Your task to perform on an android device: Empty the shopping cart on newegg.com. Add razer blade to the cart on newegg.com, then select checkout. Image 0: 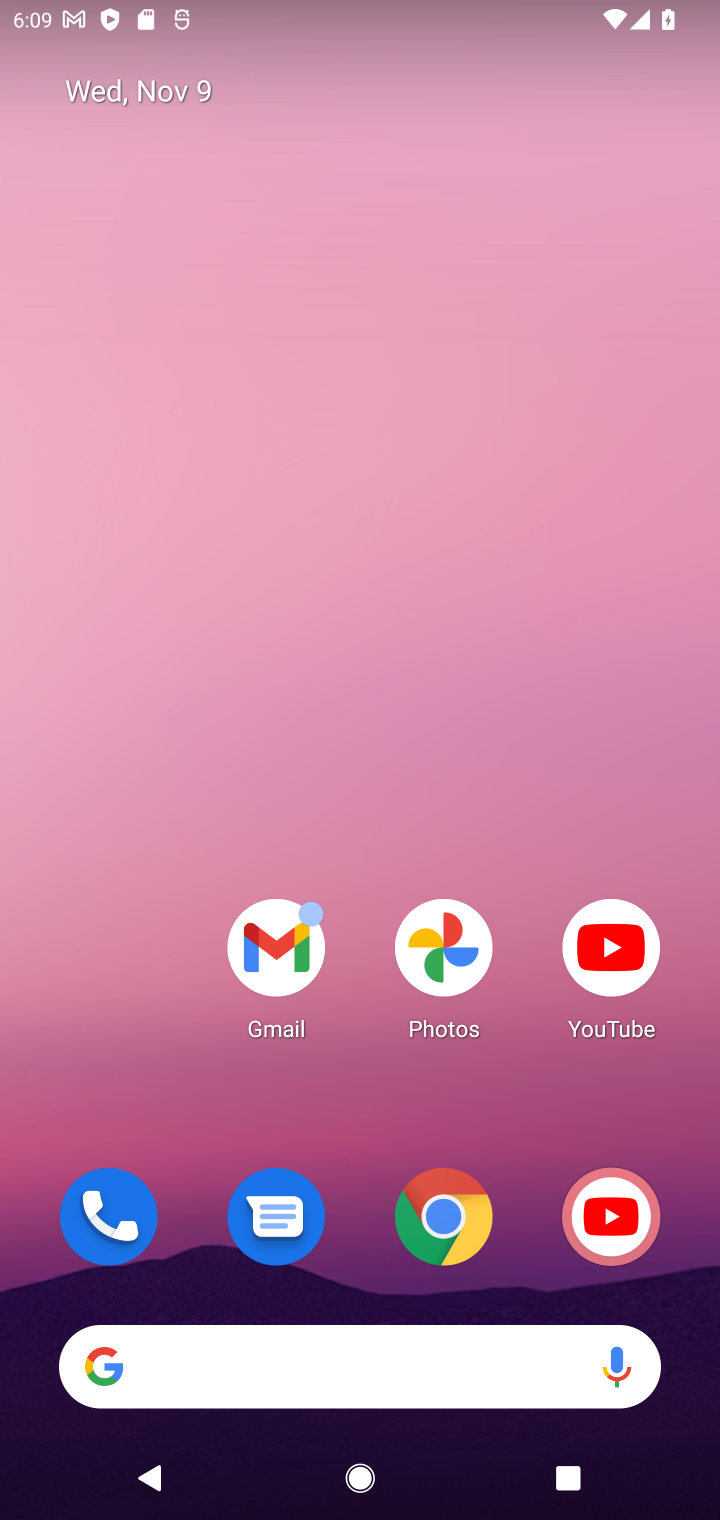
Step 0: drag from (368, 974) to (254, 187)
Your task to perform on an android device: Empty the shopping cart on newegg.com. Add razer blade to the cart on newegg.com, then select checkout. Image 1: 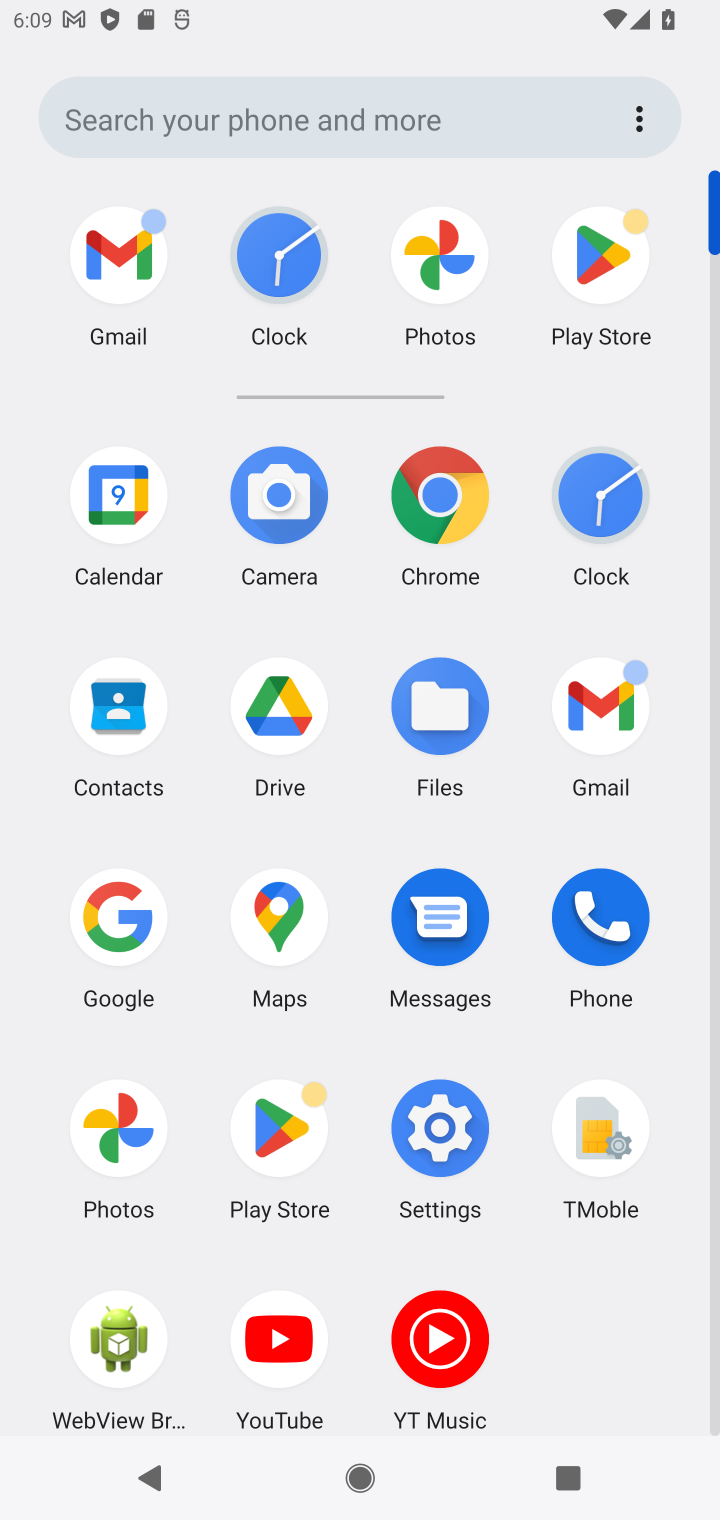
Step 1: click (451, 490)
Your task to perform on an android device: Empty the shopping cart on newegg.com. Add razer blade to the cart on newegg.com, then select checkout. Image 2: 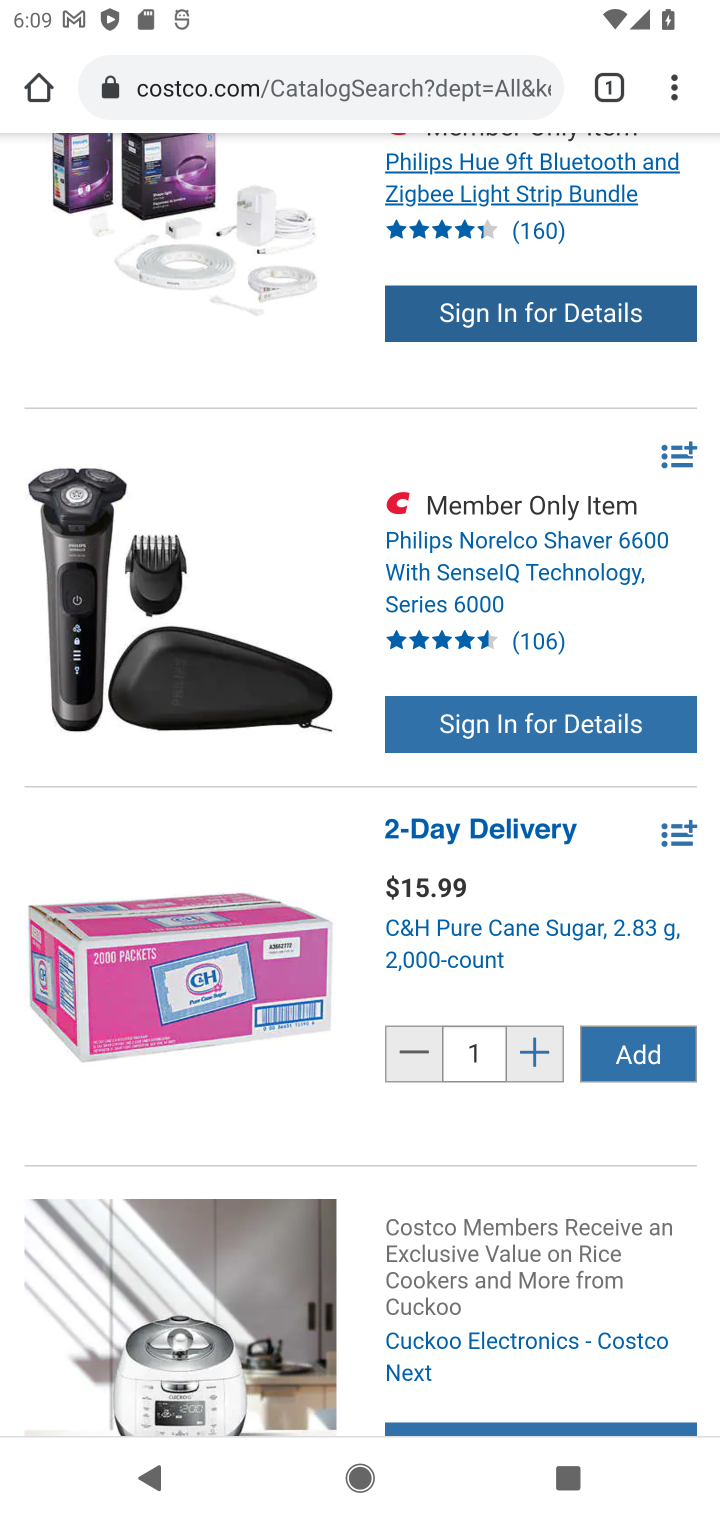
Step 2: drag from (492, 197) to (522, 741)
Your task to perform on an android device: Empty the shopping cart on newegg.com. Add razer blade to the cart on newegg.com, then select checkout. Image 3: 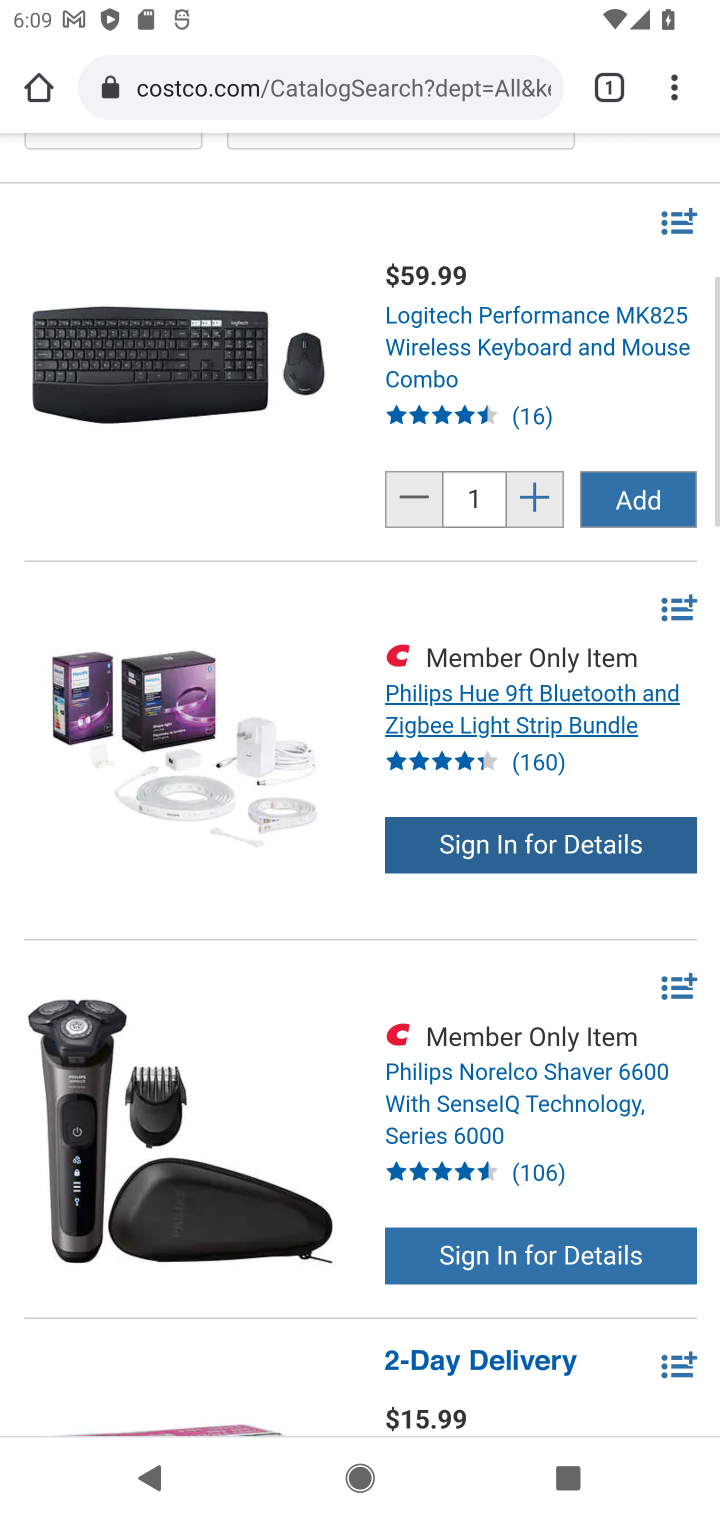
Step 3: click (352, 88)
Your task to perform on an android device: Empty the shopping cart on newegg.com. Add razer blade to the cart on newegg.com, then select checkout. Image 4: 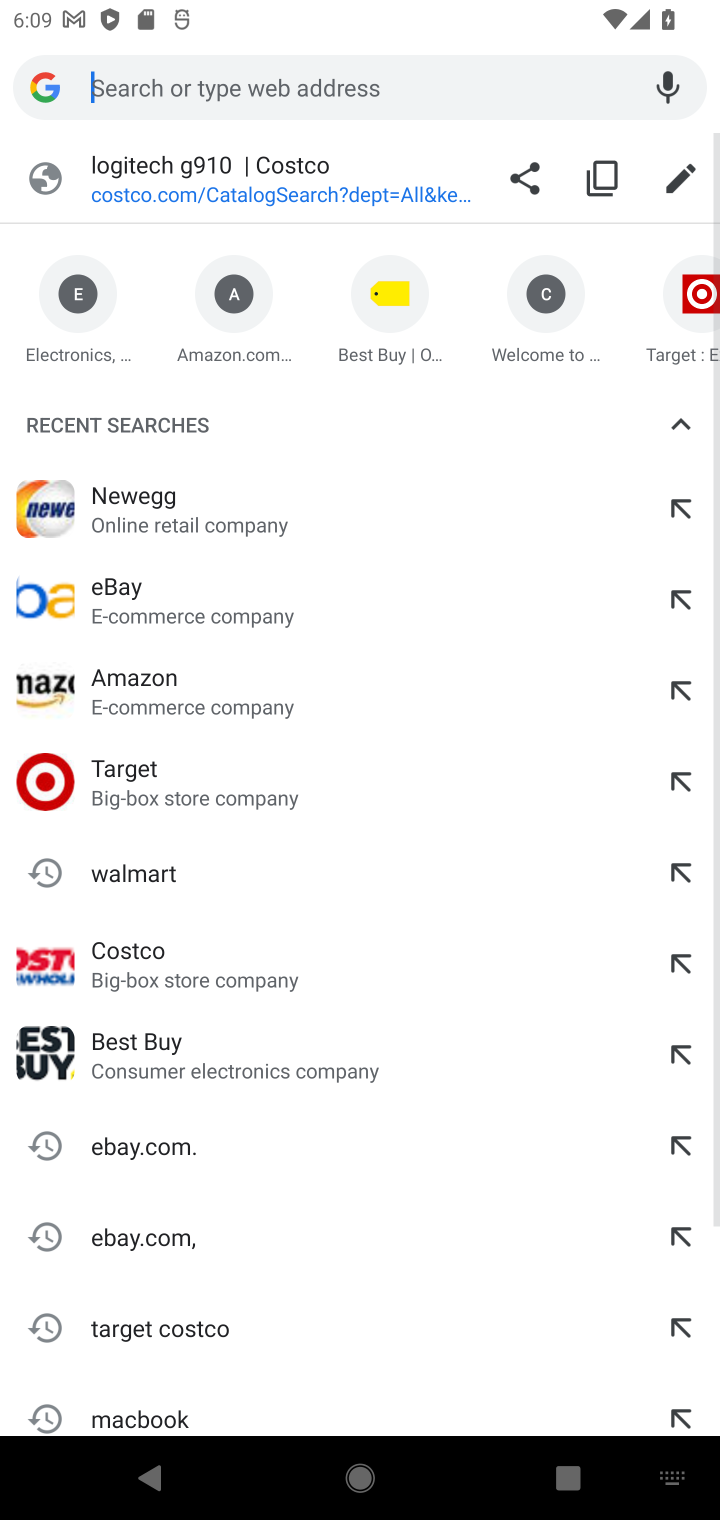
Step 4: type "newegg.com"
Your task to perform on an android device: Empty the shopping cart on newegg.com. Add razer blade to the cart on newegg.com, then select checkout. Image 5: 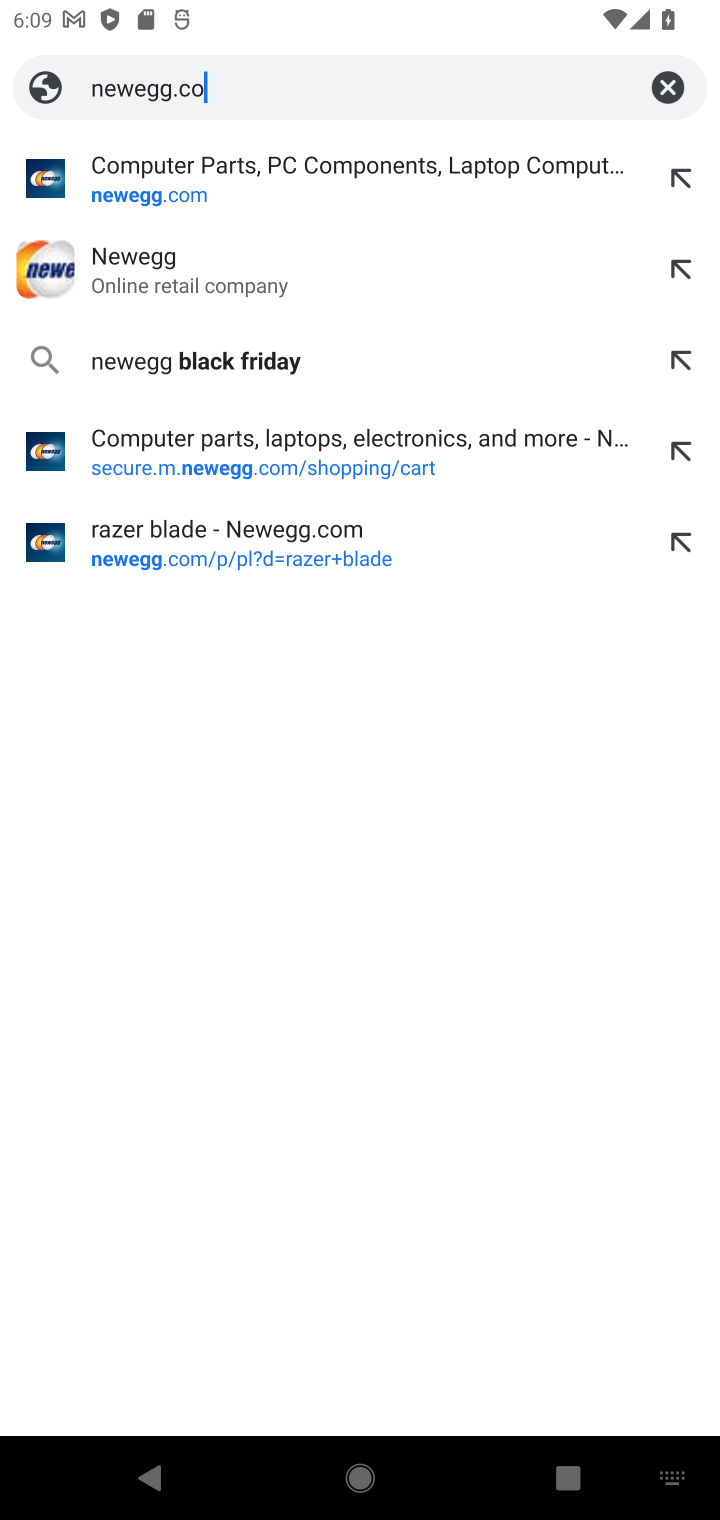
Step 5: press enter
Your task to perform on an android device: Empty the shopping cart on newegg.com. Add razer blade to the cart on newegg.com, then select checkout. Image 6: 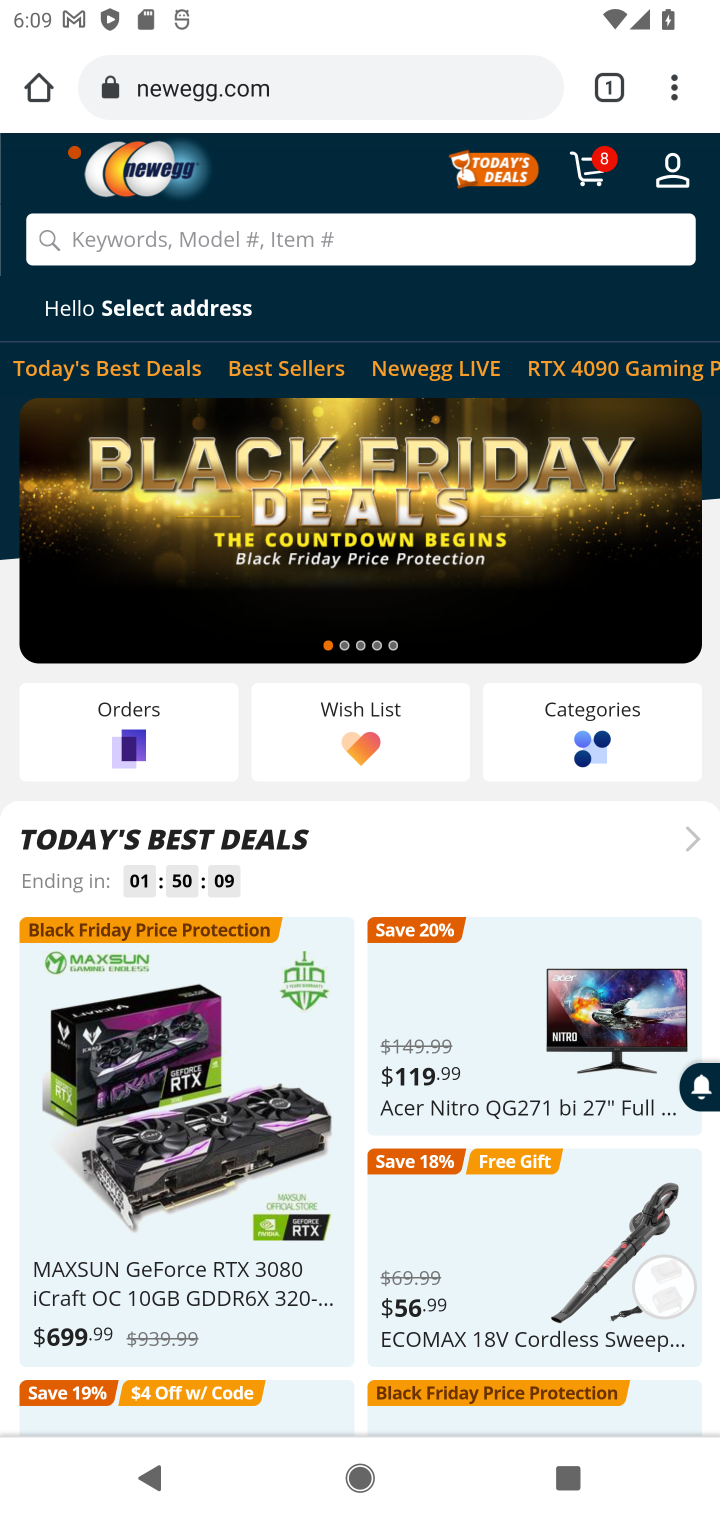
Step 6: click (599, 177)
Your task to perform on an android device: Empty the shopping cart on newegg.com. Add razer blade to the cart on newegg.com, then select checkout. Image 7: 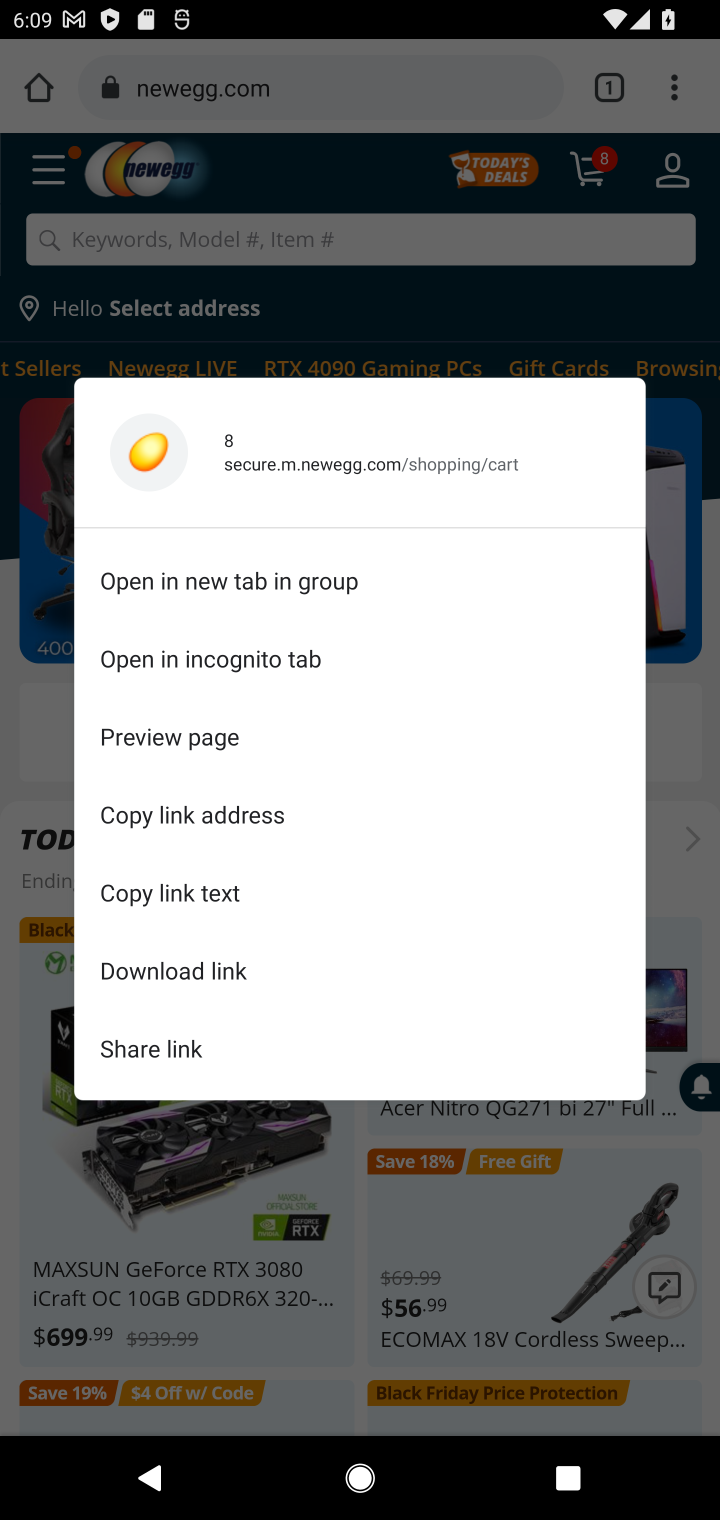
Step 7: click (599, 177)
Your task to perform on an android device: Empty the shopping cart on newegg.com. Add razer blade to the cart on newegg.com, then select checkout. Image 8: 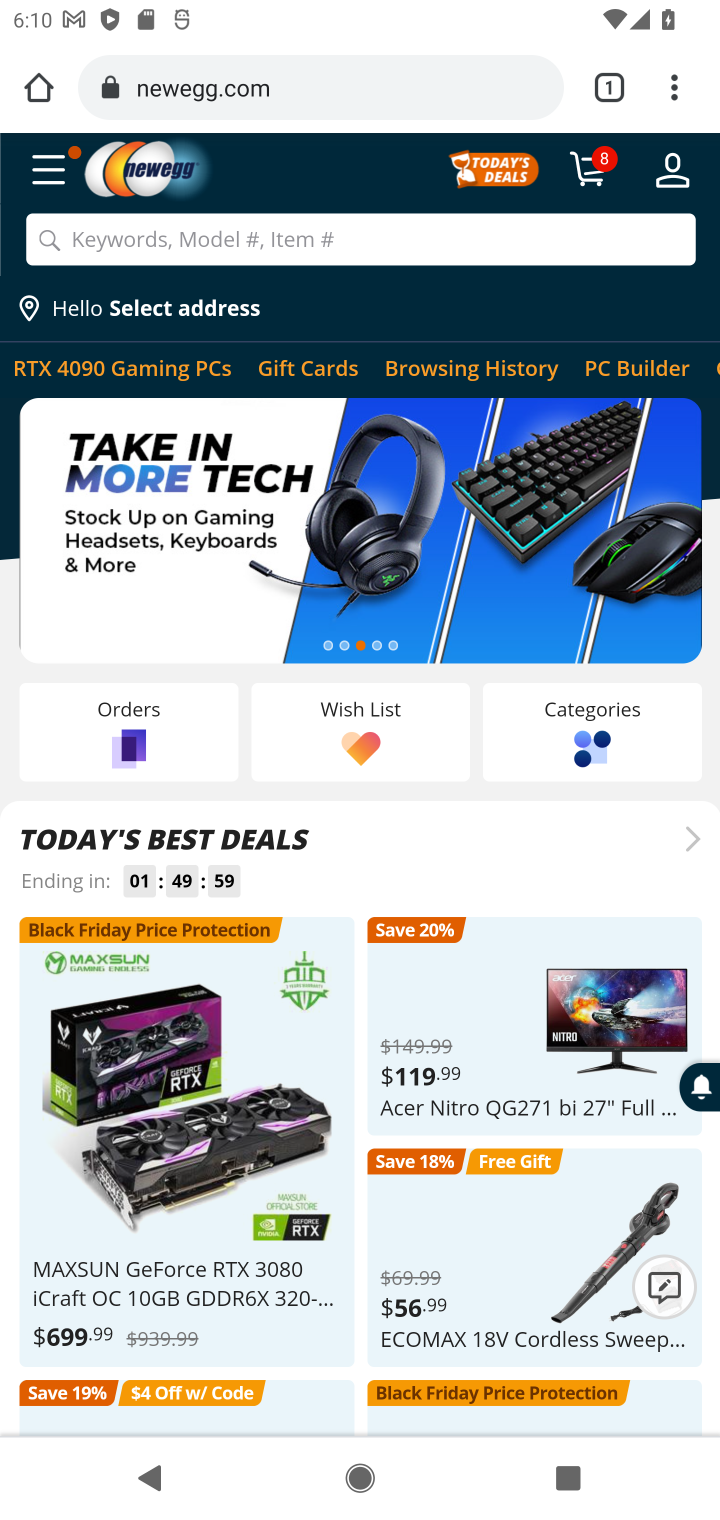
Step 8: click (599, 177)
Your task to perform on an android device: Empty the shopping cart on newegg.com. Add razer blade to the cart on newegg.com, then select checkout. Image 9: 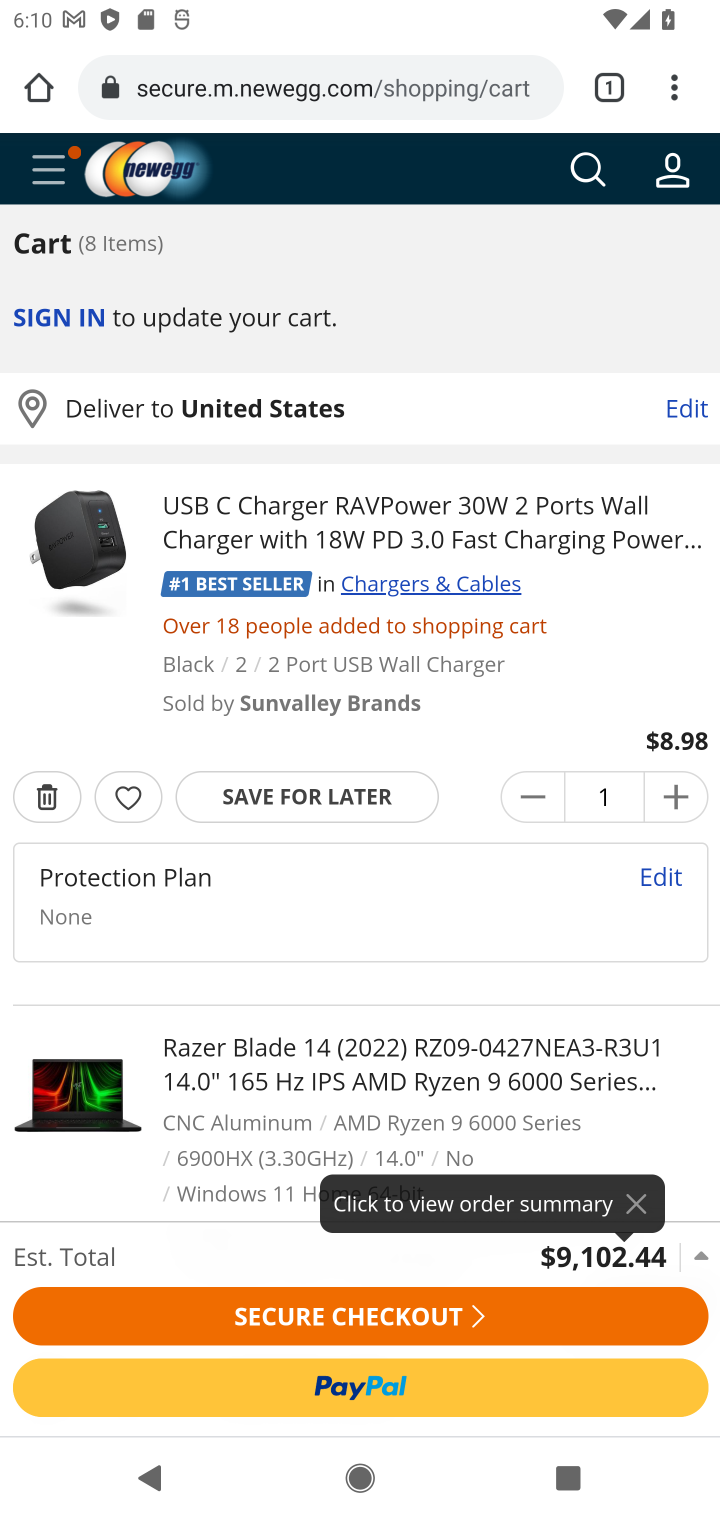
Step 9: click (57, 792)
Your task to perform on an android device: Empty the shopping cart on newegg.com. Add razer blade to the cart on newegg.com, then select checkout. Image 10: 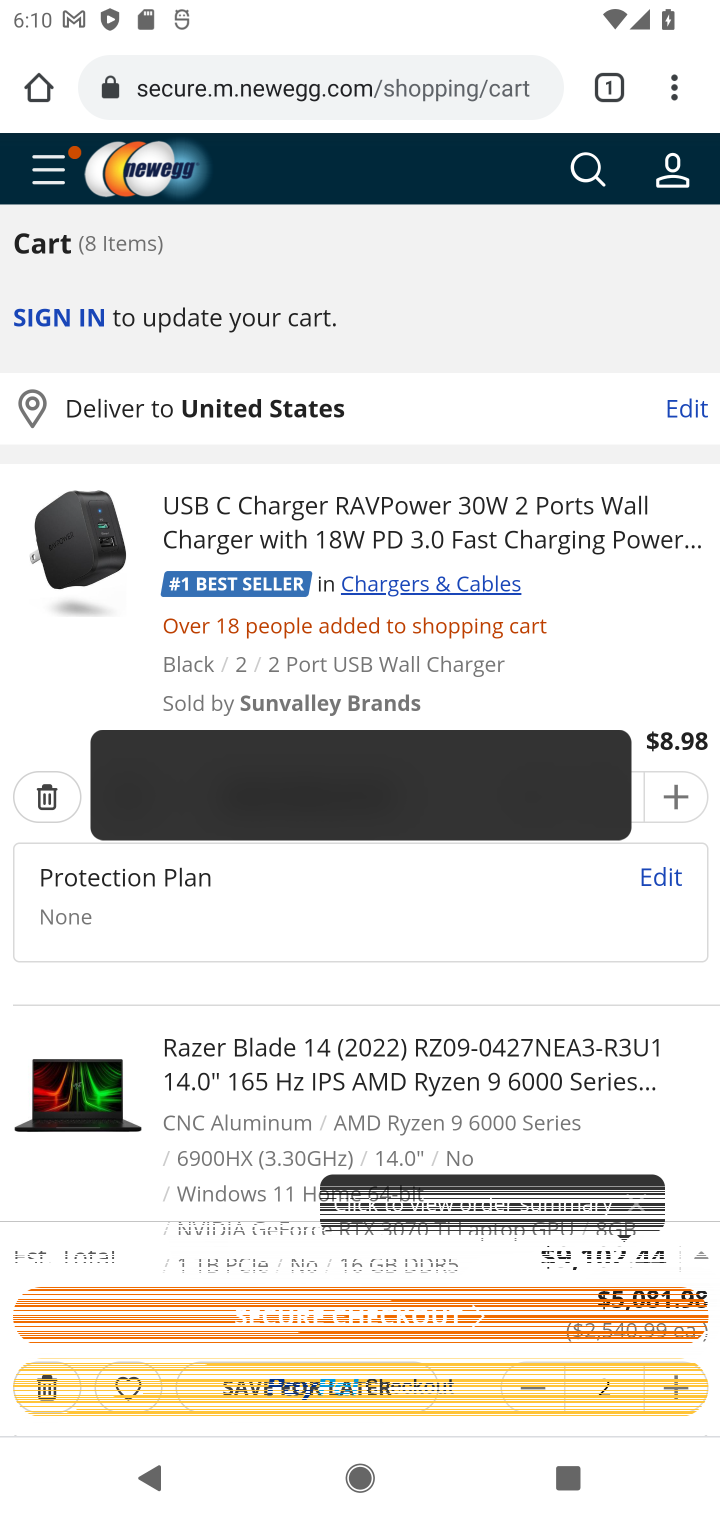
Step 10: drag from (472, 977) to (476, 860)
Your task to perform on an android device: Empty the shopping cart on newegg.com. Add razer blade to the cart on newegg.com, then select checkout. Image 11: 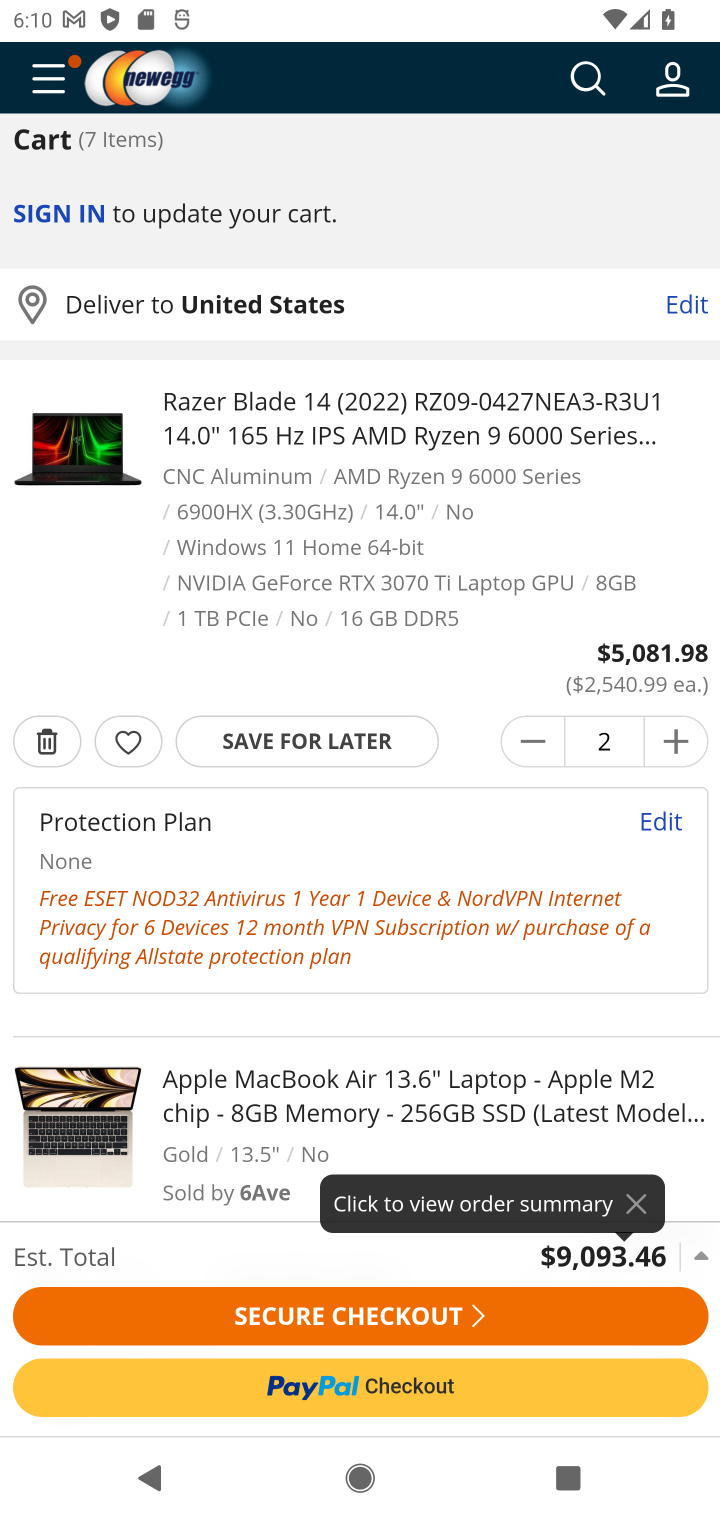
Step 11: click (38, 727)
Your task to perform on an android device: Empty the shopping cart on newegg.com. Add razer blade to the cart on newegg.com, then select checkout. Image 12: 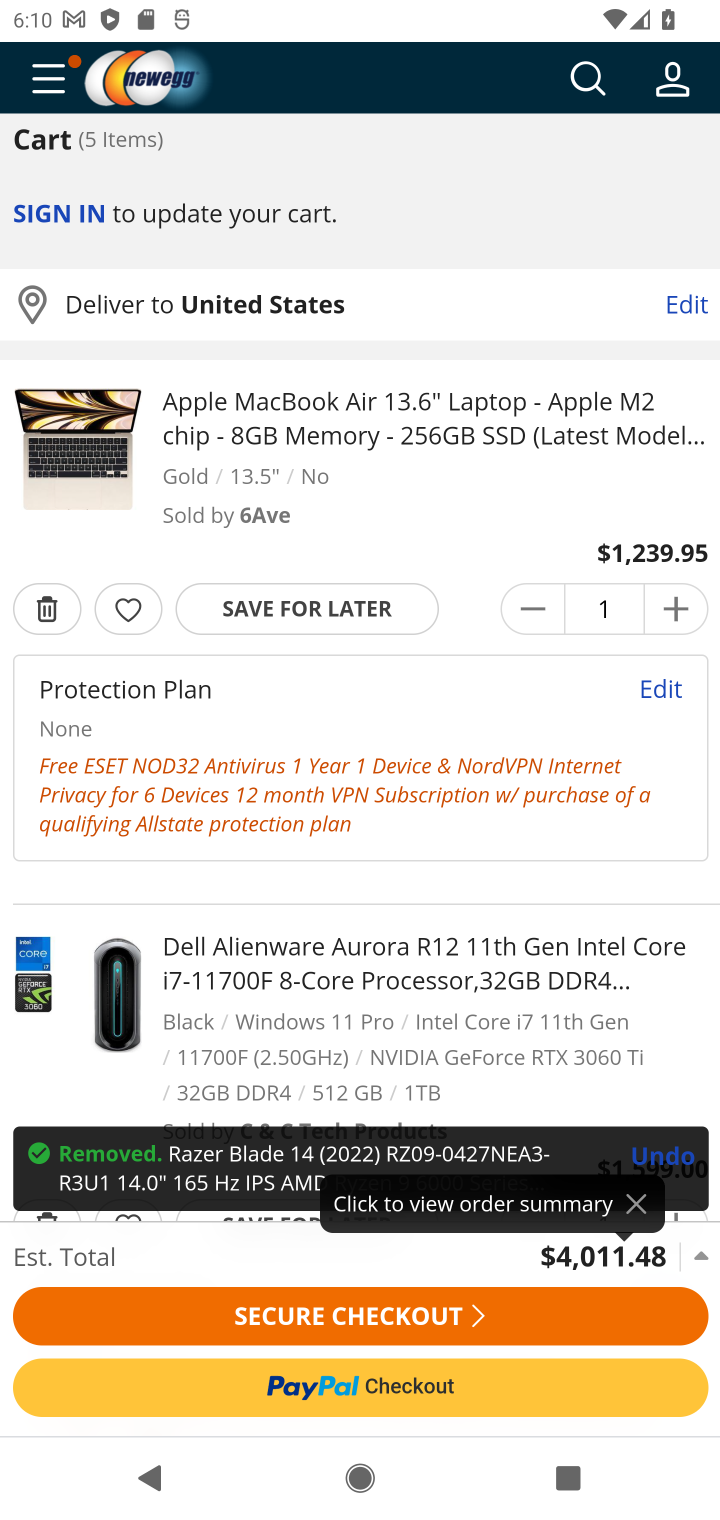
Step 12: click (50, 617)
Your task to perform on an android device: Empty the shopping cart on newegg.com. Add razer blade to the cart on newegg.com, then select checkout. Image 13: 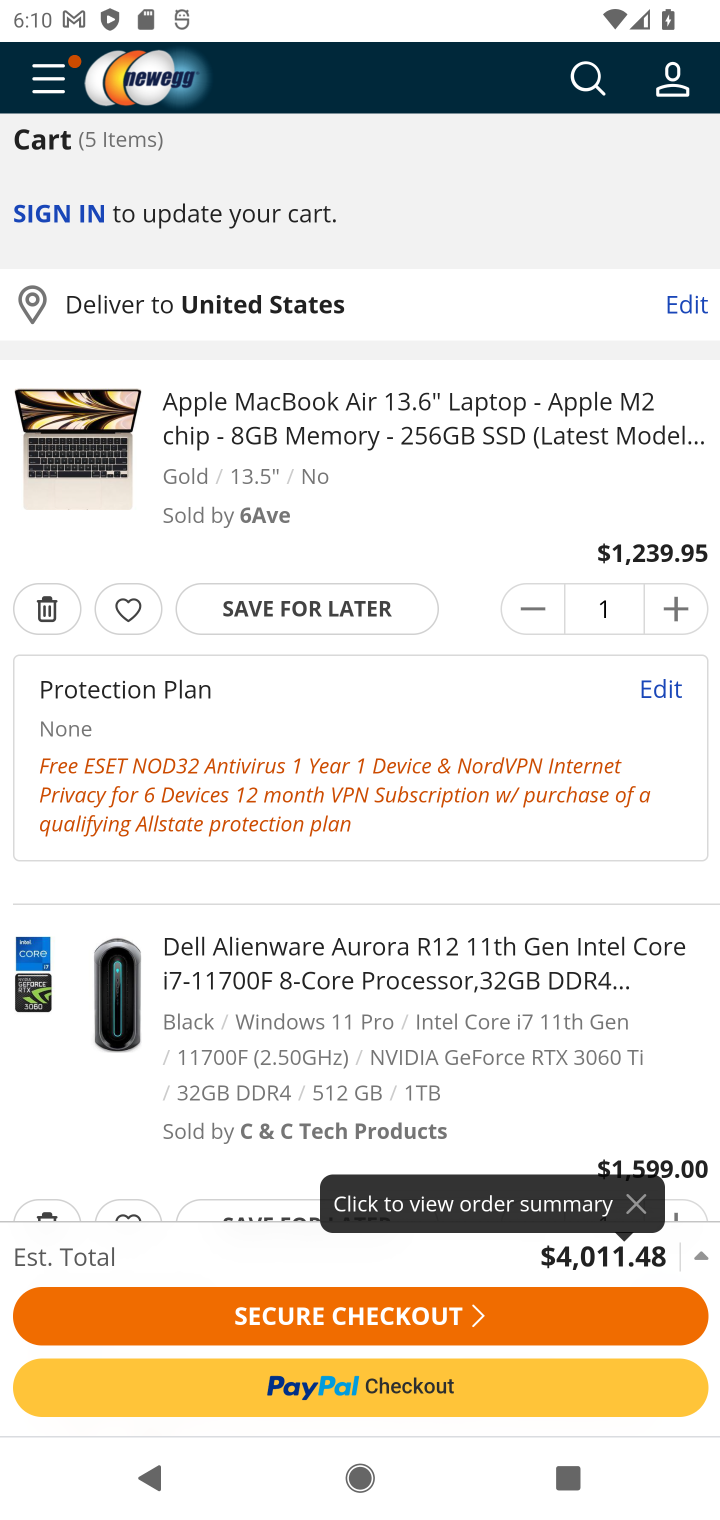
Step 13: click (50, 617)
Your task to perform on an android device: Empty the shopping cart on newegg.com. Add razer blade to the cart on newegg.com, then select checkout. Image 14: 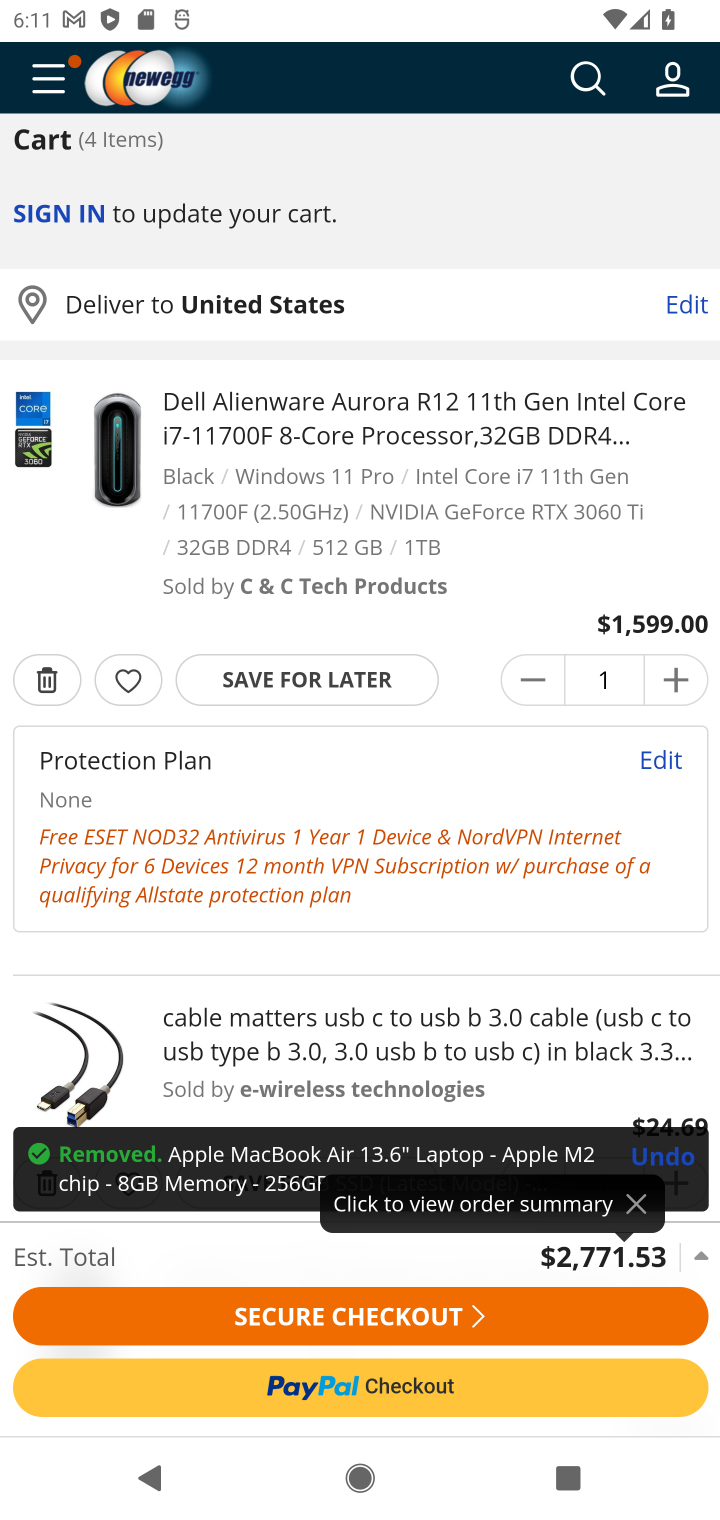
Step 14: click (37, 675)
Your task to perform on an android device: Empty the shopping cart on newegg.com. Add razer blade to the cart on newegg.com, then select checkout. Image 15: 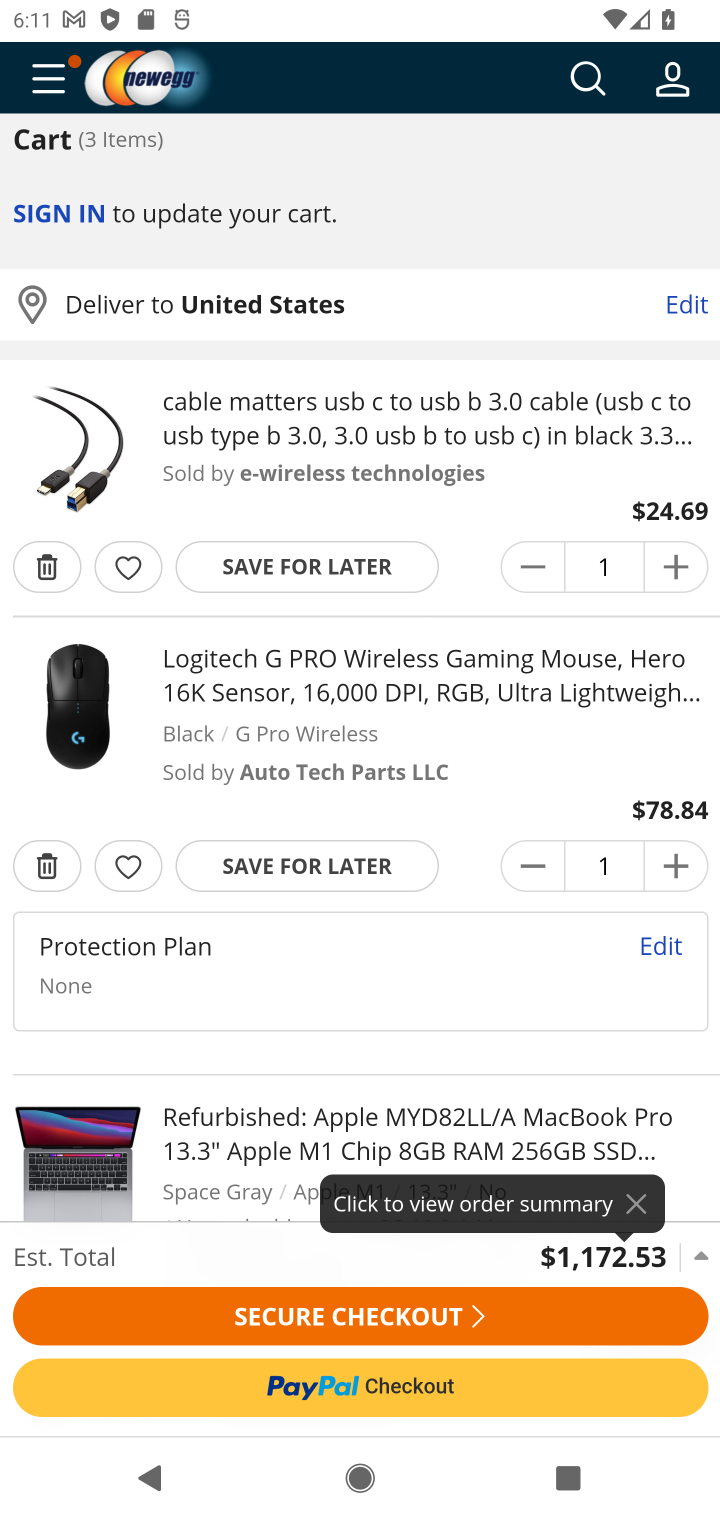
Step 15: click (51, 561)
Your task to perform on an android device: Empty the shopping cart on newegg.com. Add razer blade to the cart on newegg.com, then select checkout. Image 16: 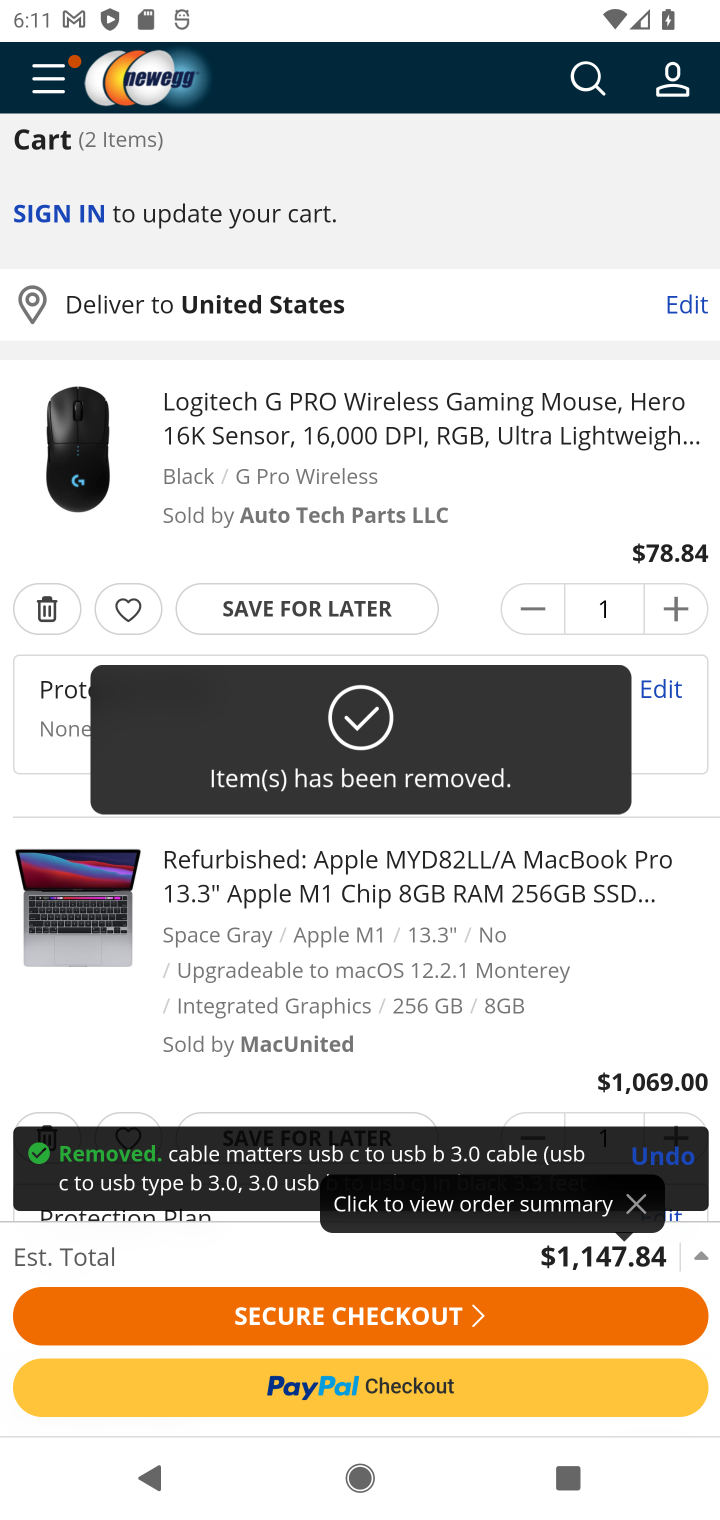
Step 16: click (49, 603)
Your task to perform on an android device: Empty the shopping cart on newegg.com. Add razer blade to the cart on newegg.com, then select checkout. Image 17: 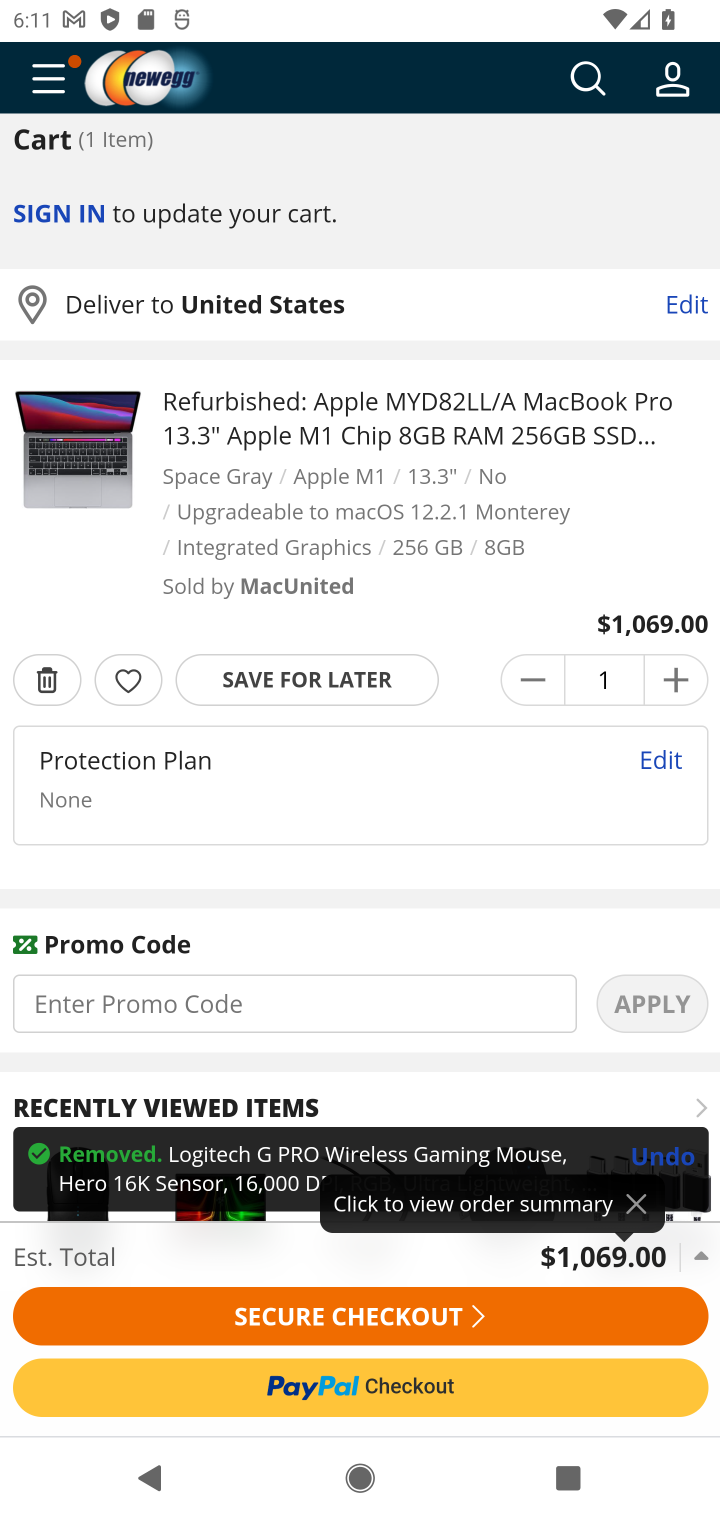
Step 17: click (34, 666)
Your task to perform on an android device: Empty the shopping cart on newegg.com. Add razer blade to the cart on newegg.com, then select checkout. Image 18: 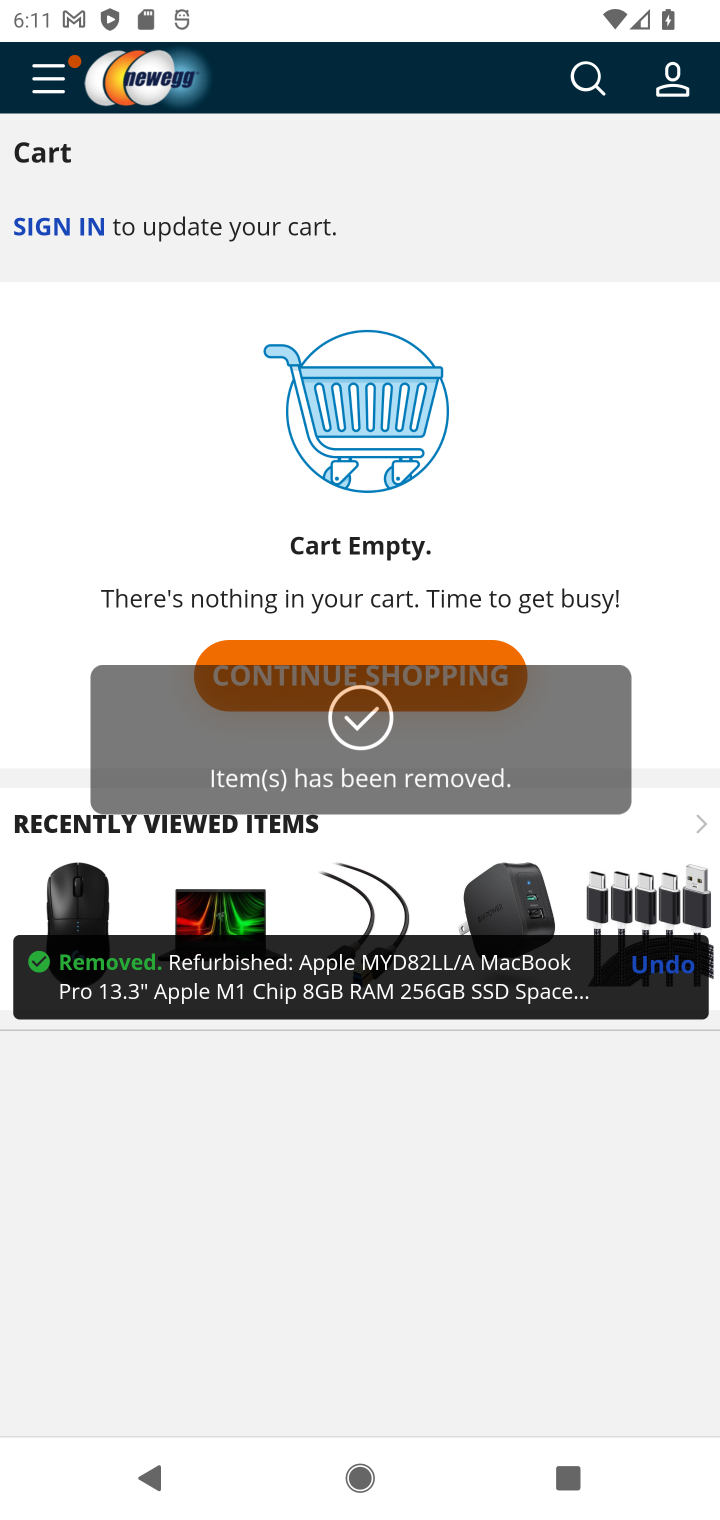
Step 18: click (564, 73)
Your task to perform on an android device: Empty the shopping cart on newegg.com. Add razer blade to the cart on newegg.com, then select checkout. Image 19: 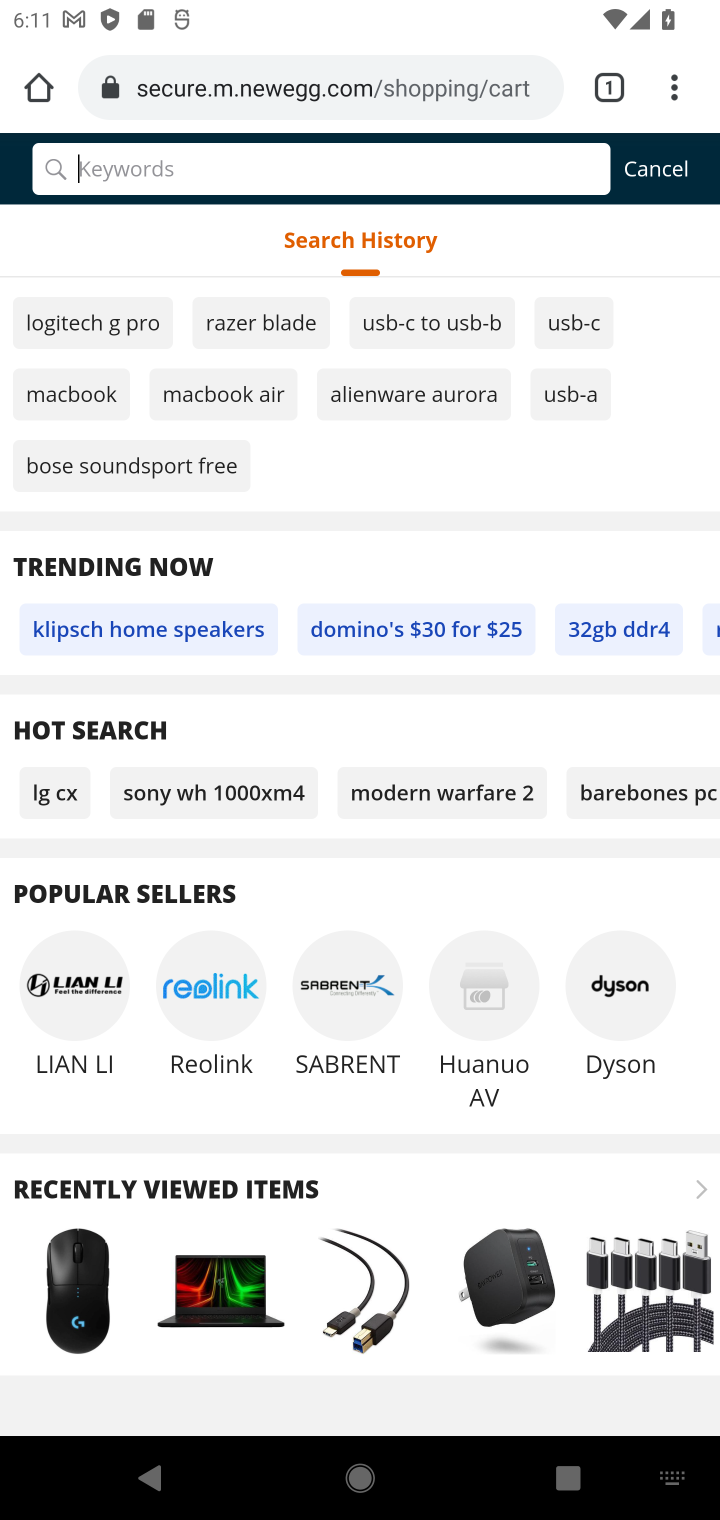
Step 19: type "razer blade"
Your task to perform on an android device: Empty the shopping cart on newegg.com. Add razer blade to the cart on newegg.com, then select checkout. Image 20: 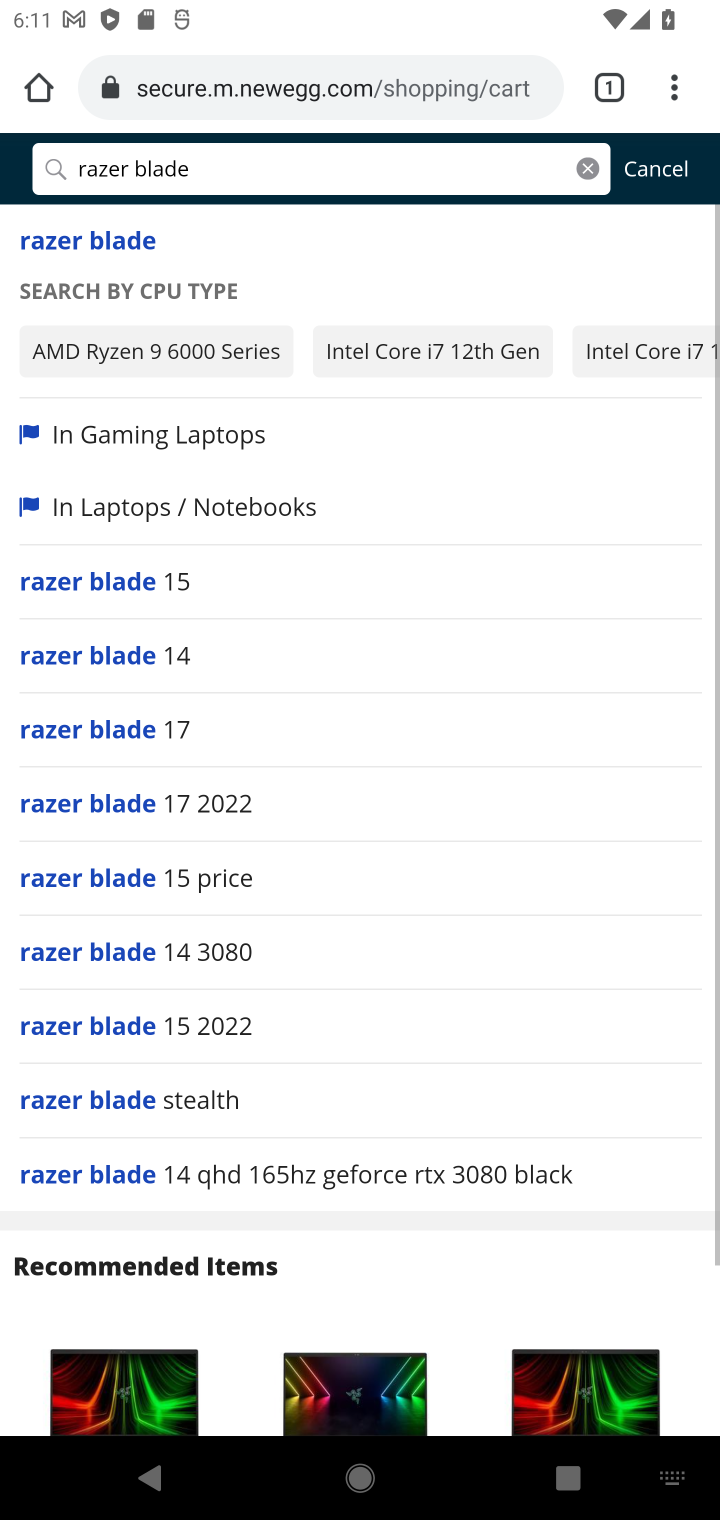
Step 20: press enter
Your task to perform on an android device: Empty the shopping cart on newegg.com. Add razer blade to the cart on newegg.com, then select checkout. Image 21: 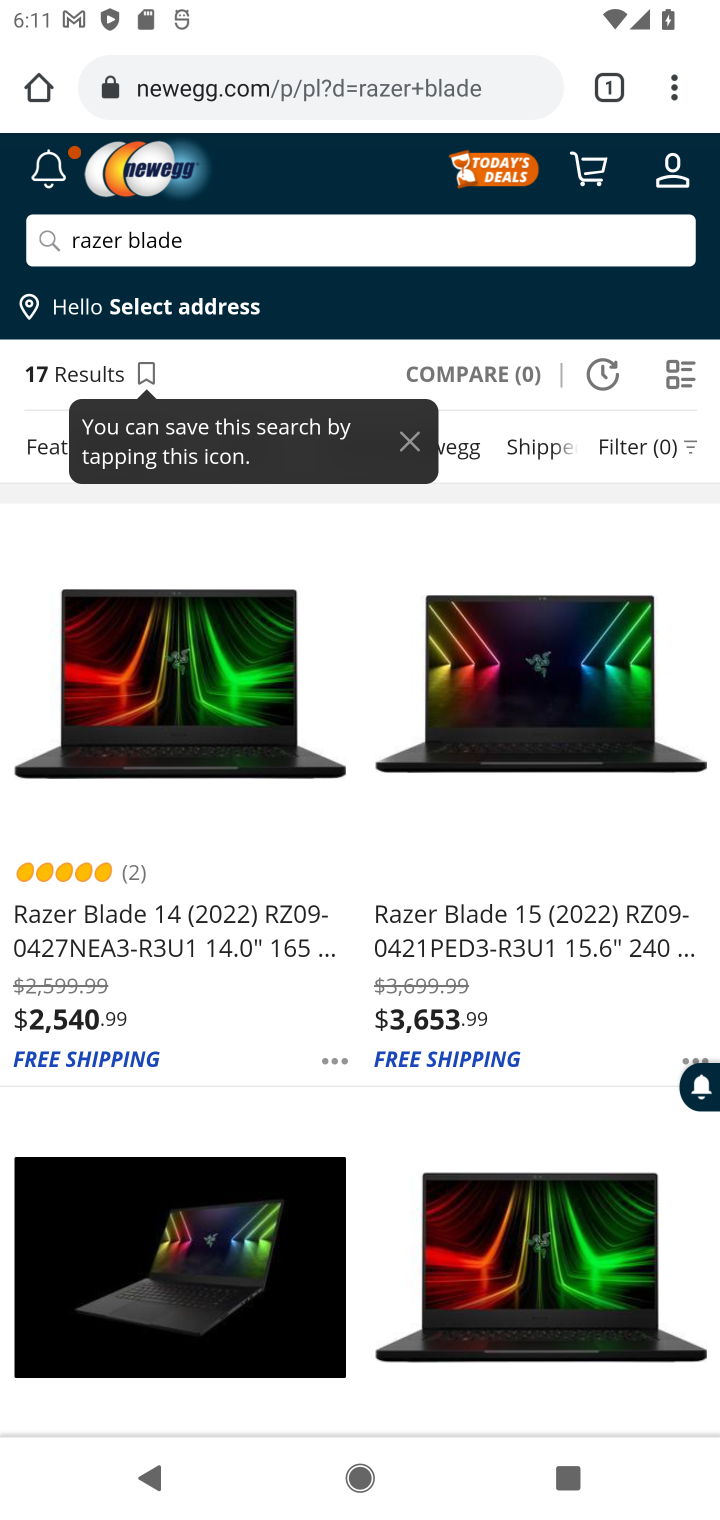
Step 21: click (288, 909)
Your task to perform on an android device: Empty the shopping cart on newegg.com. Add razer blade to the cart on newegg.com, then select checkout. Image 22: 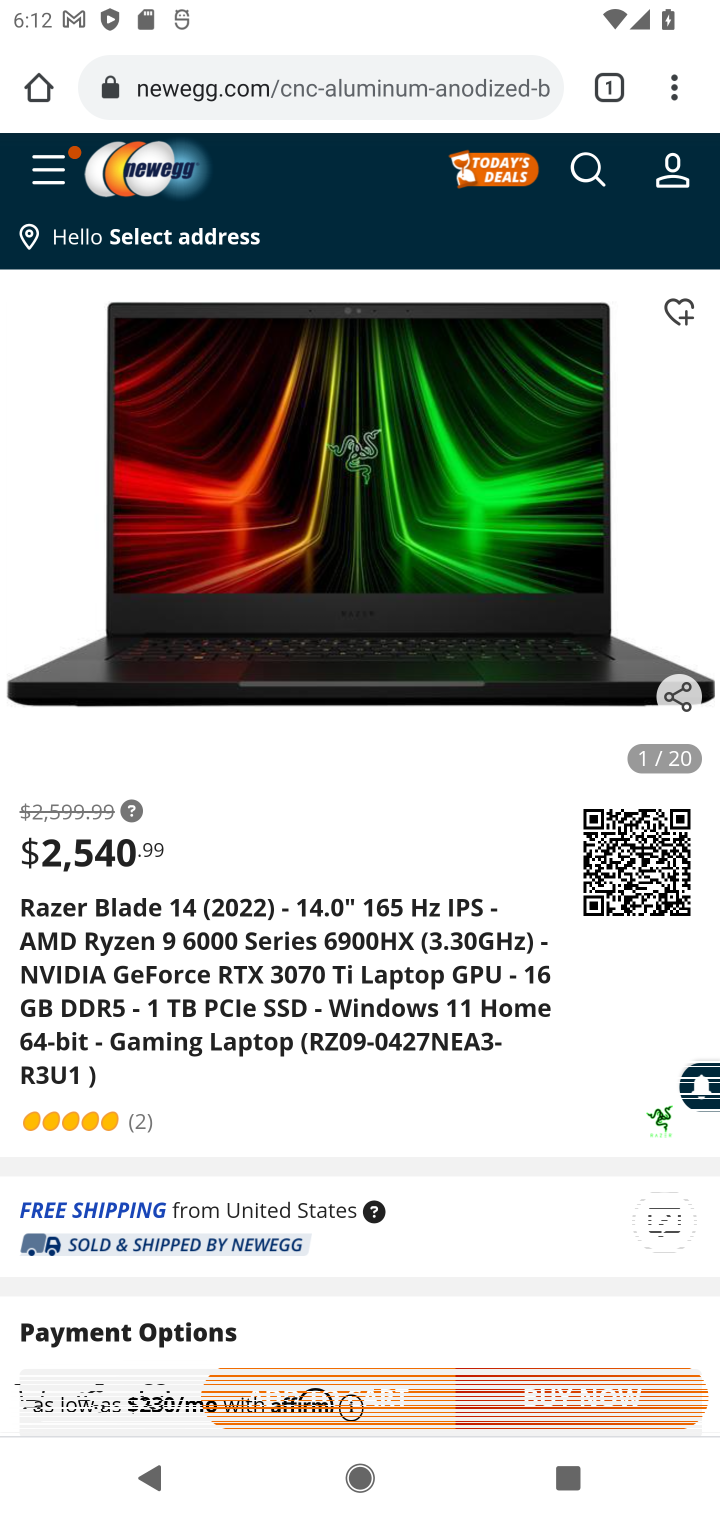
Step 22: click (422, 1388)
Your task to perform on an android device: Empty the shopping cart on newegg.com. Add razer blade to the cart on newegg.com, then select checkout. Image 23: 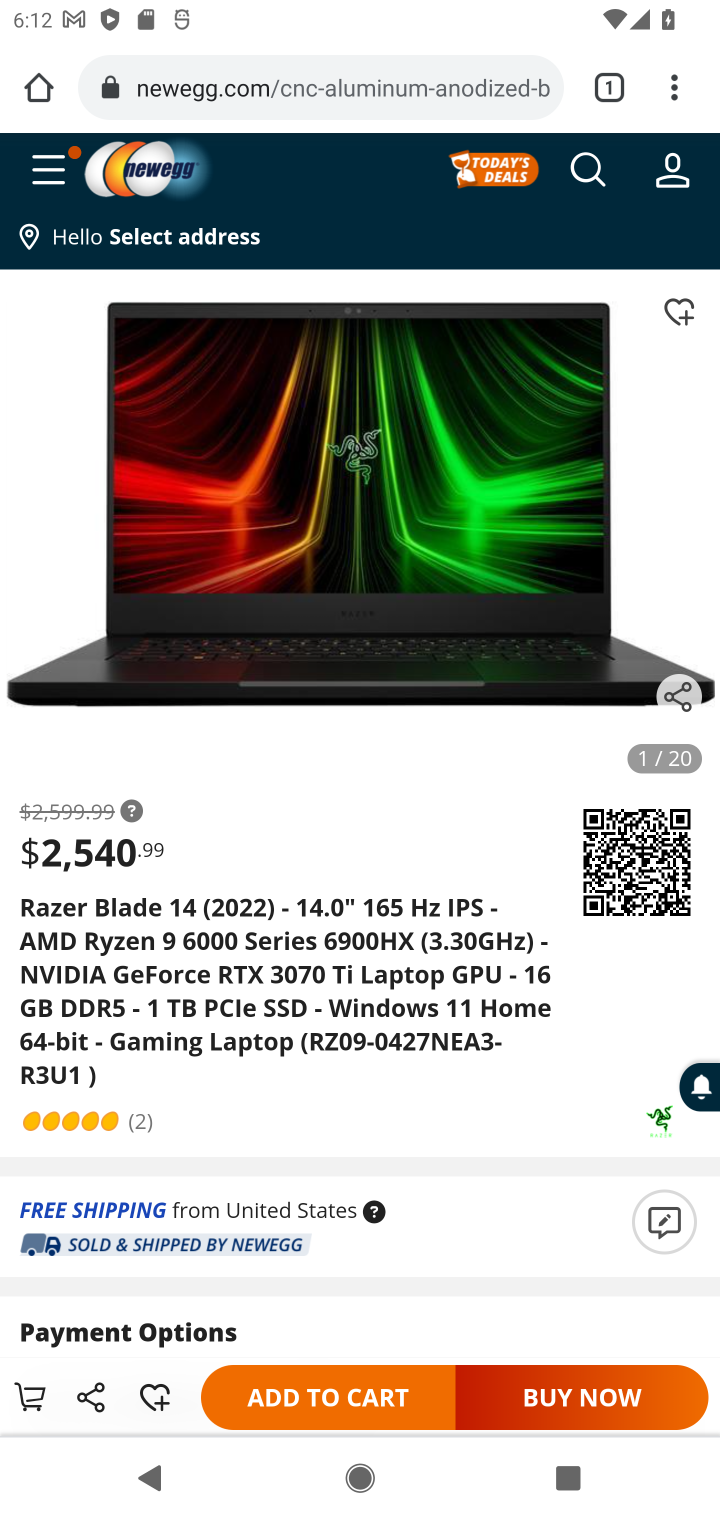
Step 23: click (377, 1388)
Your task to perform on an android device: Empty the shopping cart on newegg.com. Add razer blade to the cart on newegg.com, then select checkout. Image 24: 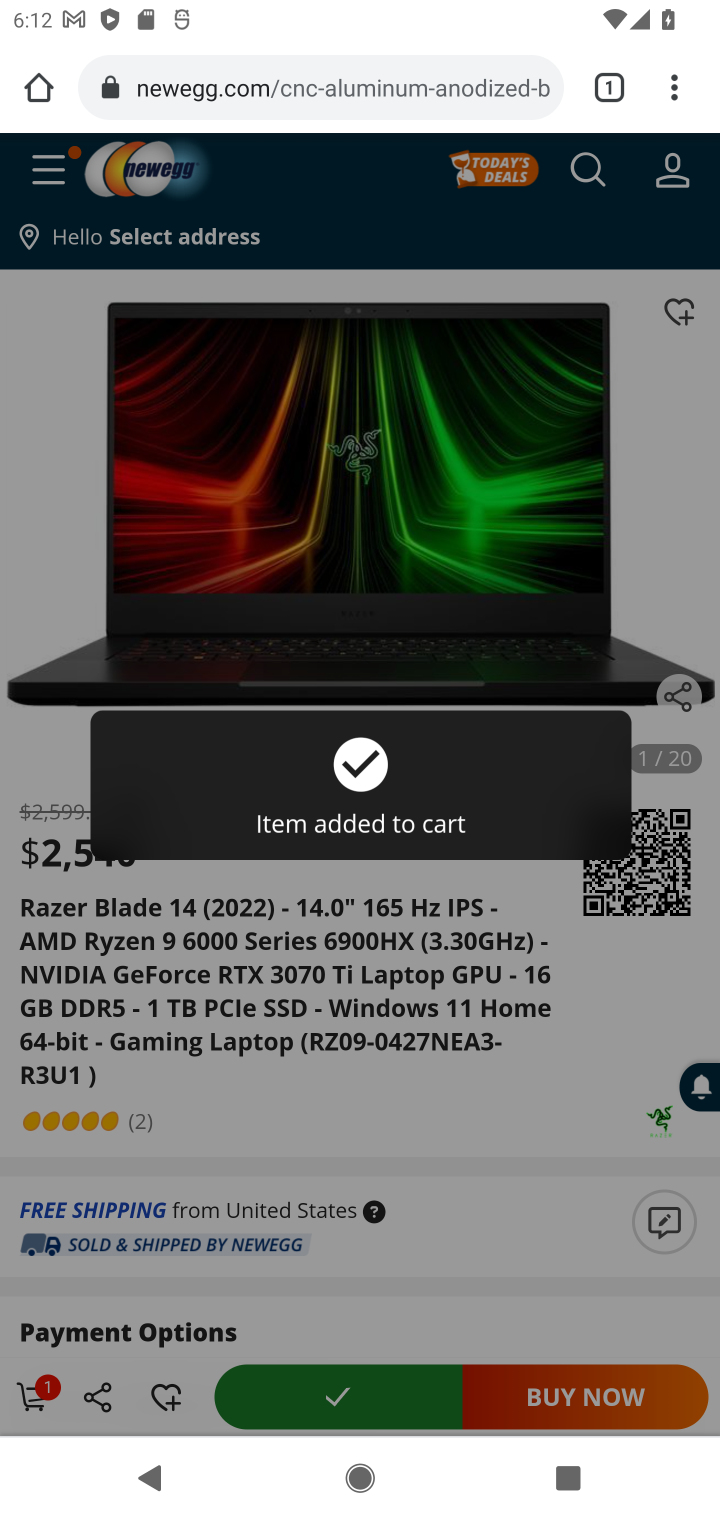
Step 24: click (42, 1398)
Your task to perform on an android device: Empty the shopping cart on newegg.com. Add razer blade to the cart on newegg.com, then select checkout. Image 25: 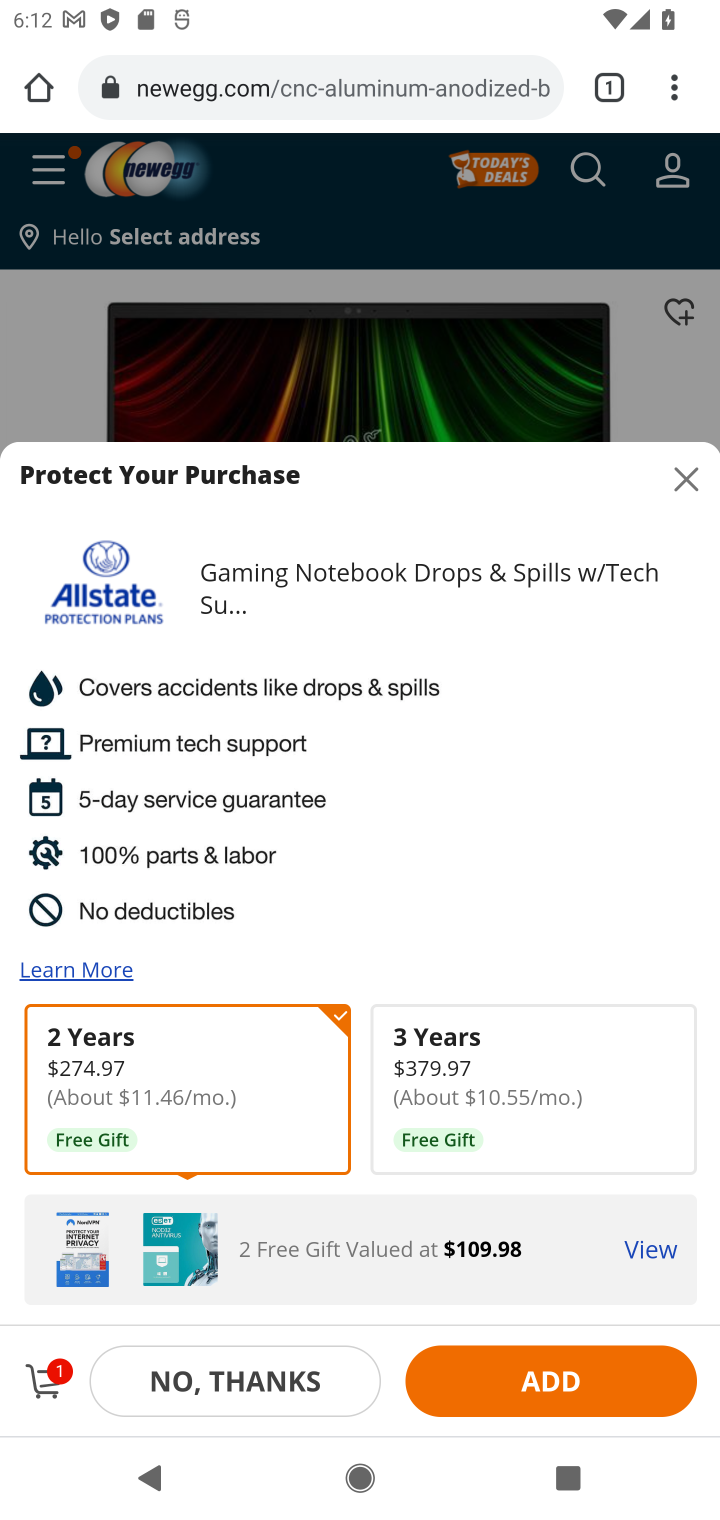
Step 25: click (44, 1388)
Your task to perform on an android device: Empty the shopping cart on newegg.com. Add razer blade to the cart on newegg.com, then select checkout. Image 26: 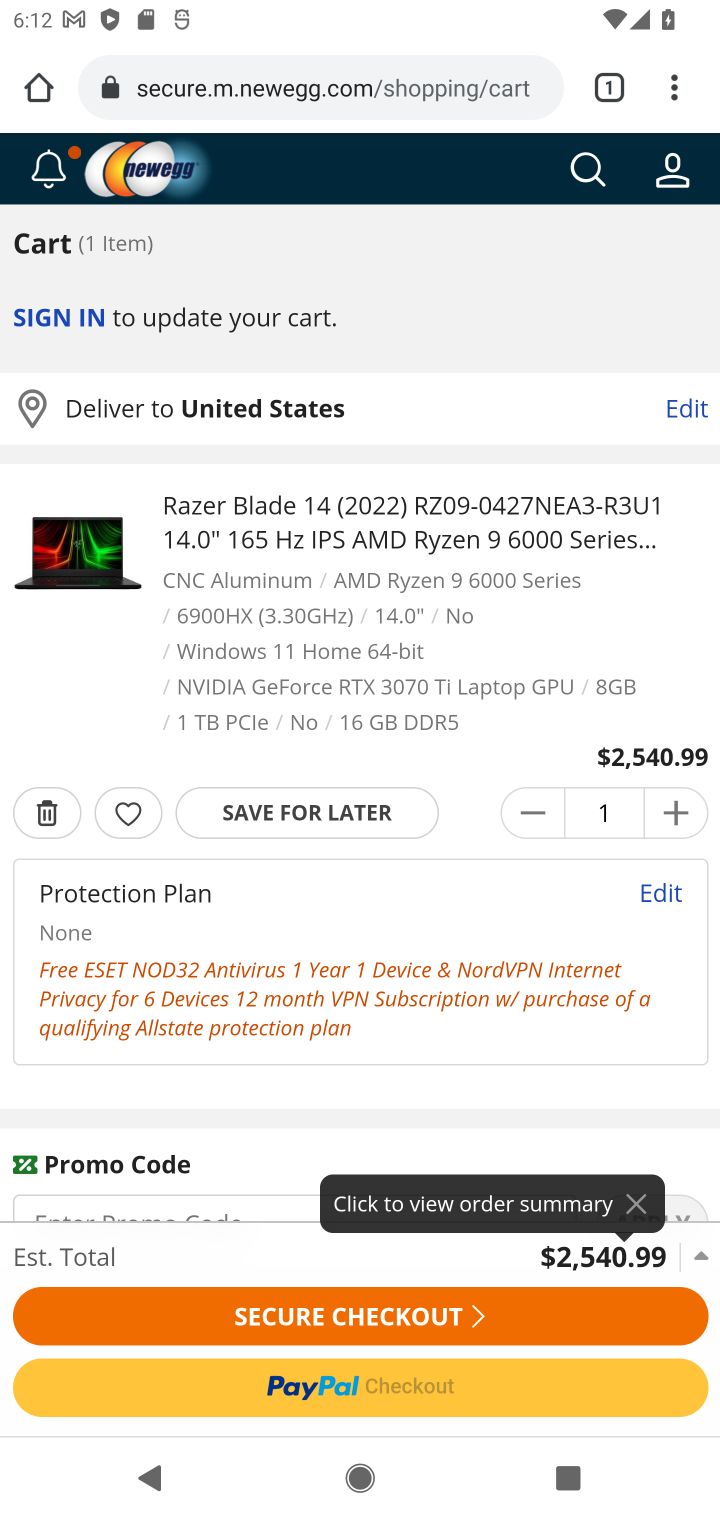
Step 26: click (279, 1306)
Your task to perform on an android device: Empty the shopping cart on newegg.com. Add razer blade to the cart on newegg.com, then select checkout. Image 27: 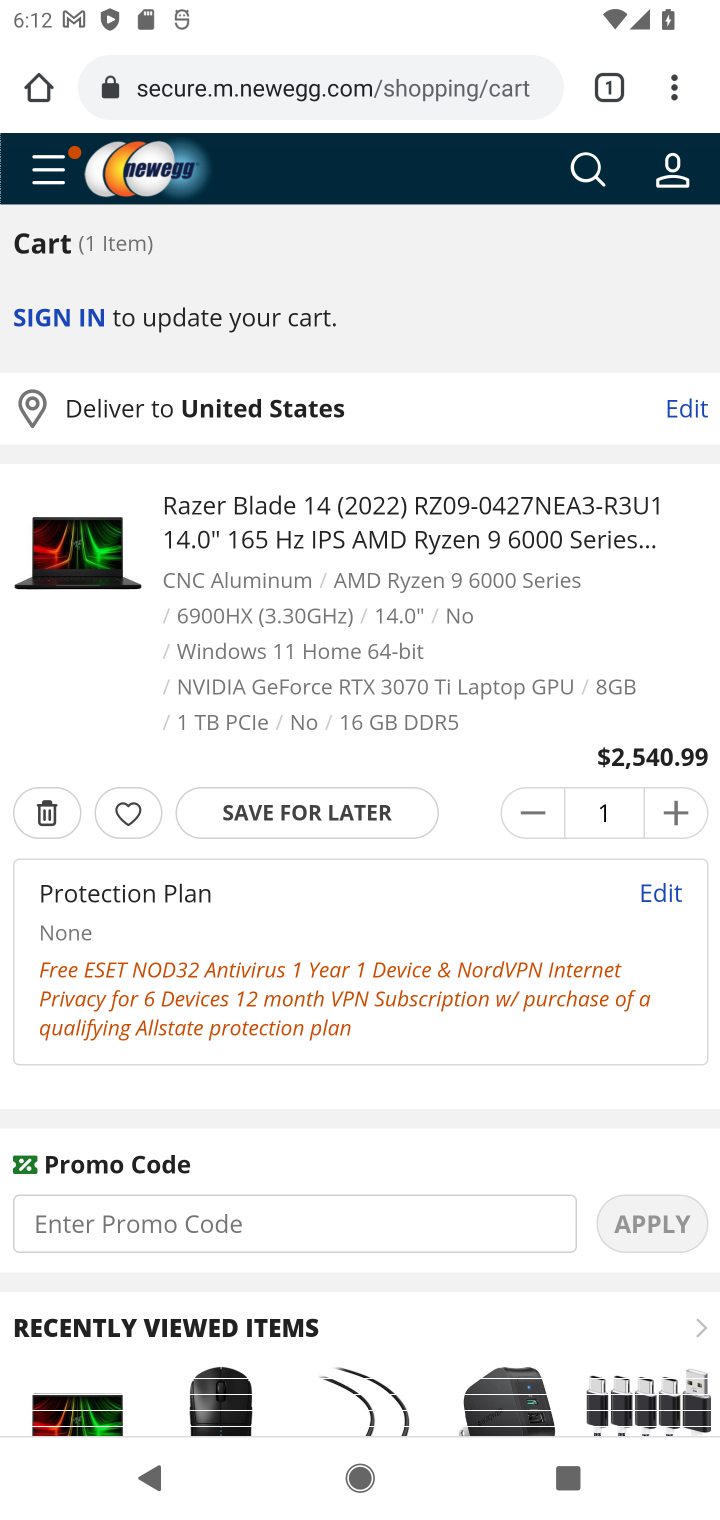
Step 27: drag from (367, 1256) to (393, 665)
Your task to perform on an android device: Empty the shopping cart on newegg.com. Add razer blade to the cart on newegg.com, then select checkout. Image 28: 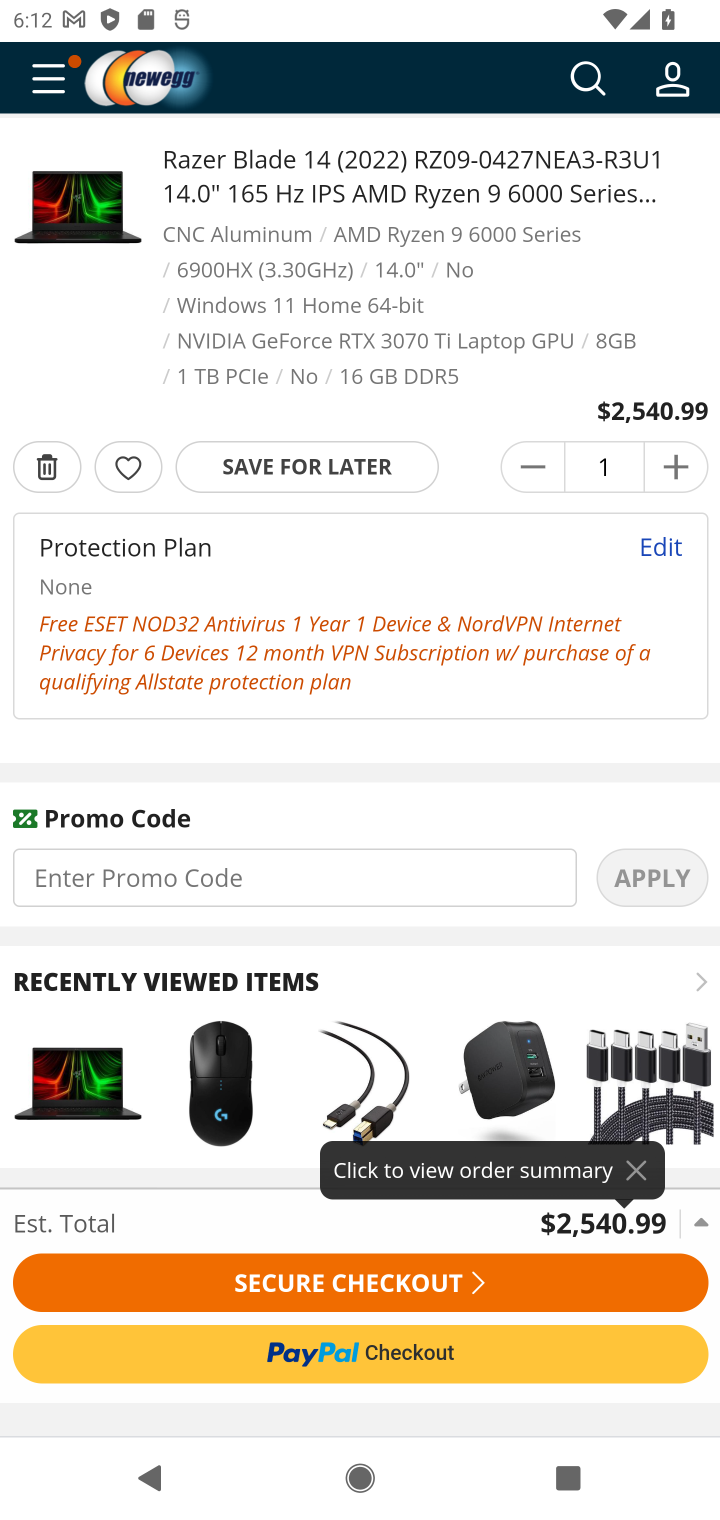
Step 28: click (378, 1272)
Your task to perform on an android device: Empty the shopping cart on newegg.com. Add razer blade to the cart on newegg.com, then select checkout. Image 29: 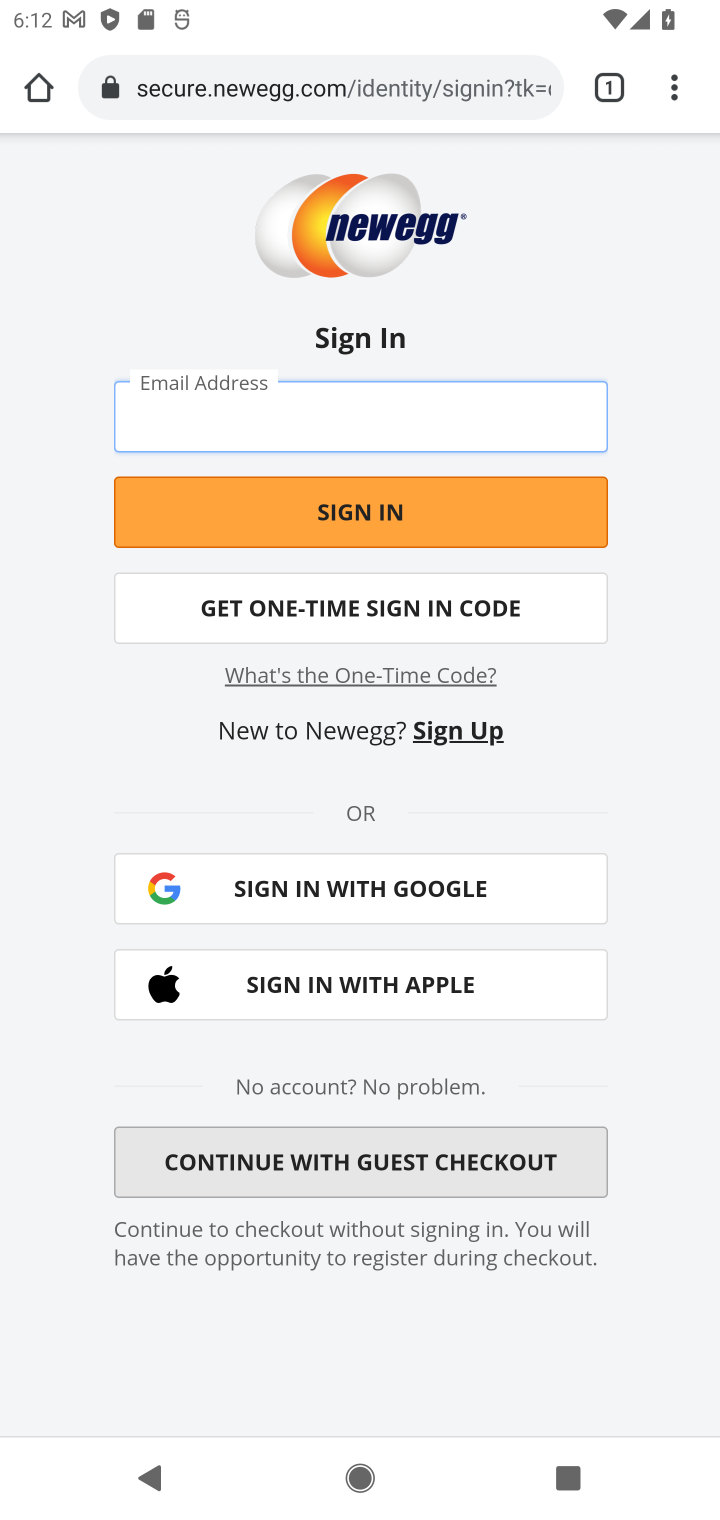
Step 29: task complete